Your task to perform on an android device: open app "Lyft - Rideshare, Bikes, Scooters & Transit" Image 0: 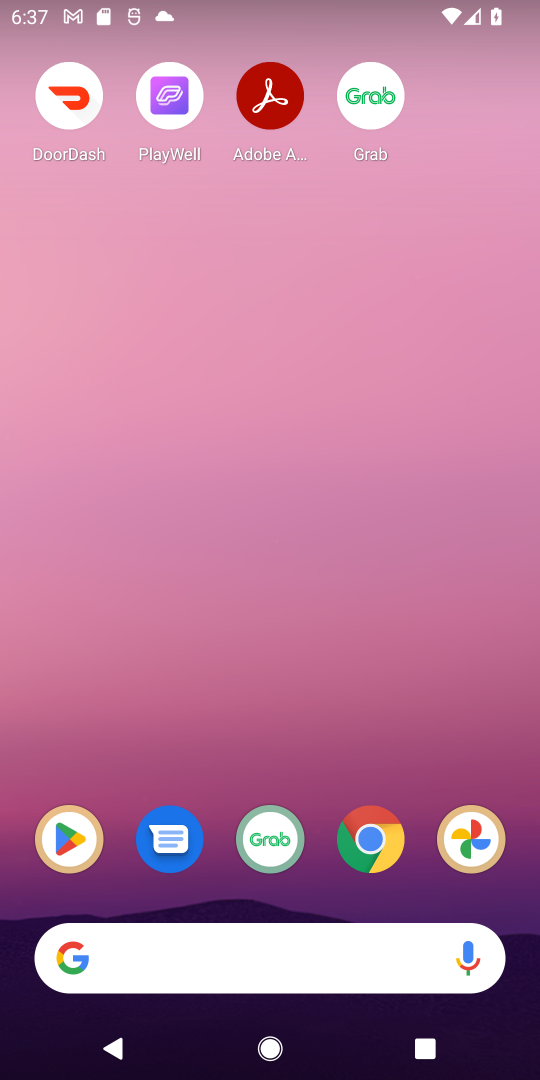
Step 0: click (61, 837)
Your task to perform on an android device: open app "Lyft - Rideshare, Bikes, Scooters & Transit" Image 1: 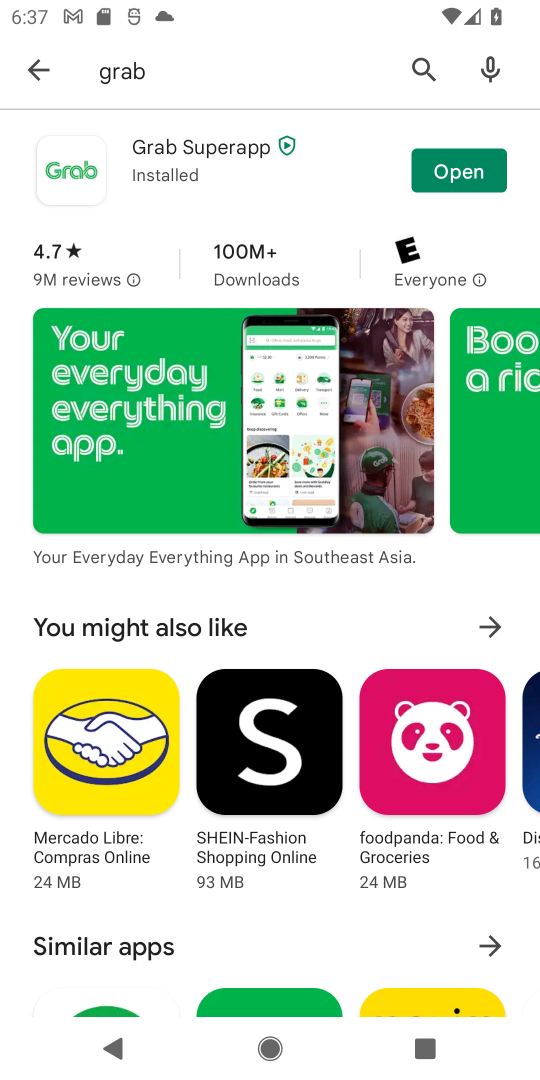
Step 1: click (201, 72)
Your task to perform on an android device: open app "Lyft - Rideshare, Bikes, Scooters & Transit" Image 2: 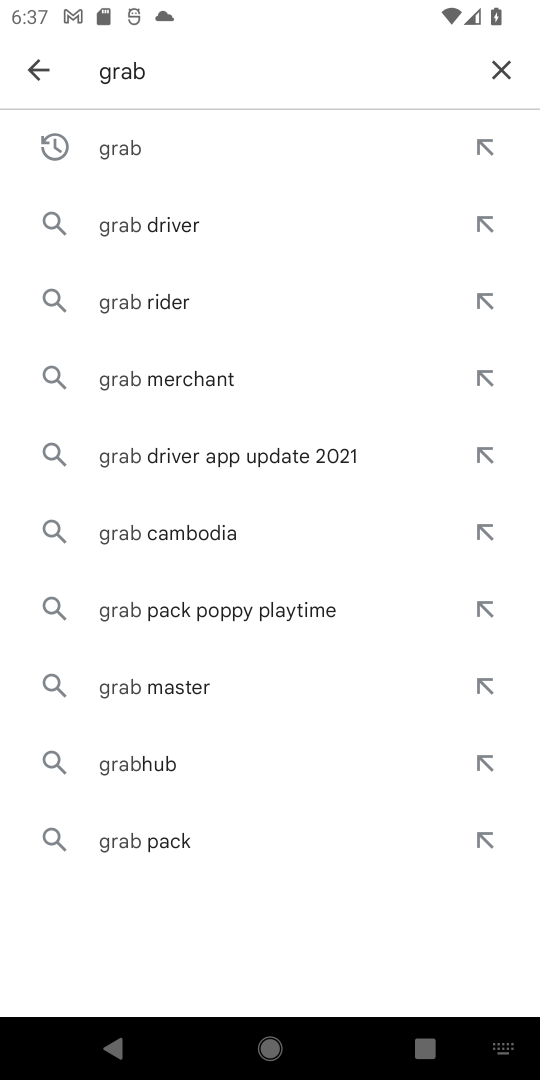
Step 2: click (493, 74)
Your task to perform on an android device: open app "Lyft - Rideshare, Bikes, Scooters & Transit" Image 3: 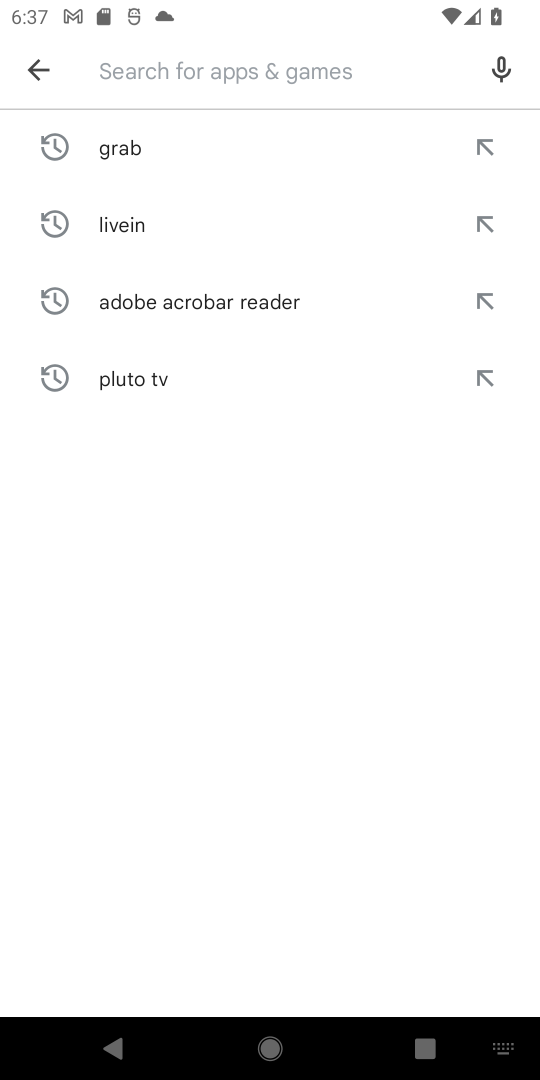
Step 3: type "lyft"
Your task to perform on an android device: open app "Lyft - Rideshare, Bikes, Scooters & Transit" Image 4: 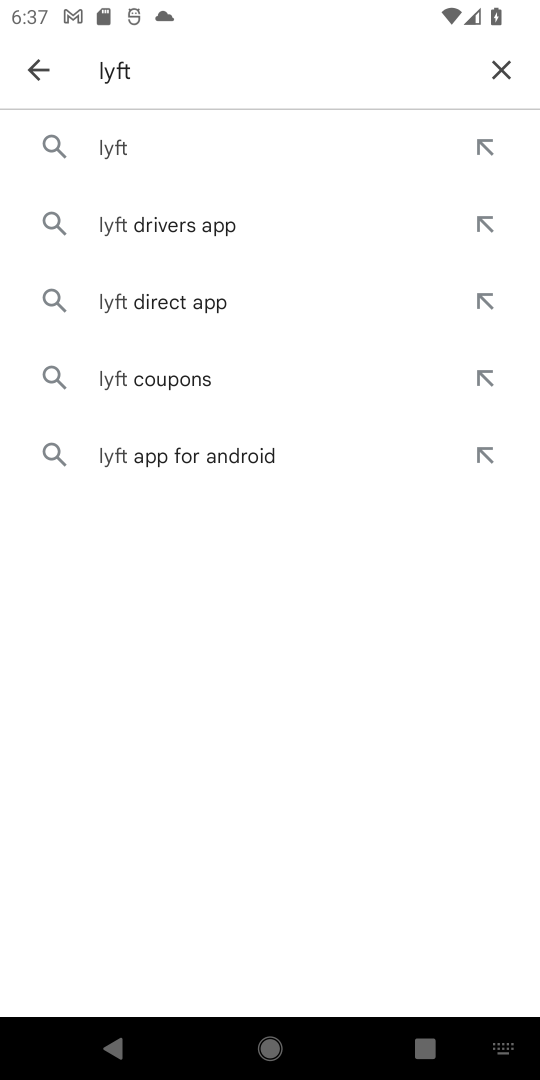
Step 4: click (159, 166)
Your task to perform on an android device: open app "Lyft - Rideshare, Bikes, Scooters & Transit" Image 5: 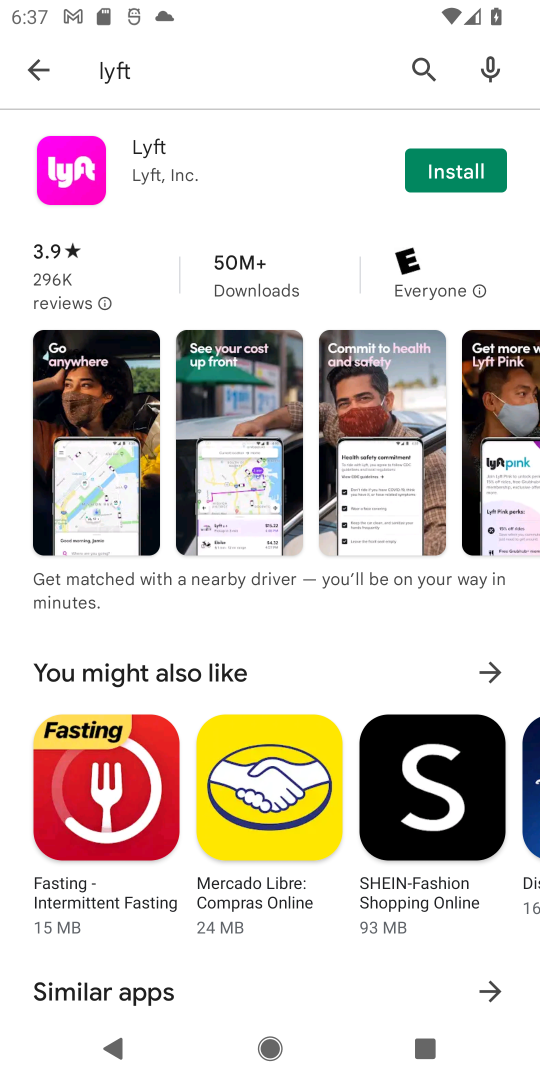
Step 5: task complete